Your task to perform on an android device: Toggle the flashlight Image 0: 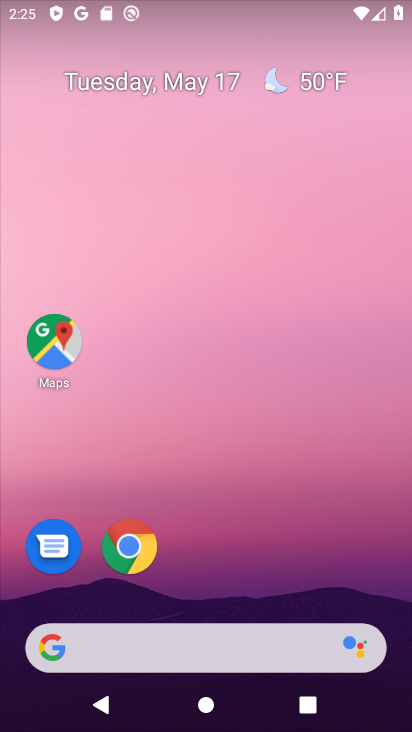
Step 0: click (136, 551)
Your task to perform on an android device: Toggle the flashlight Image 1: 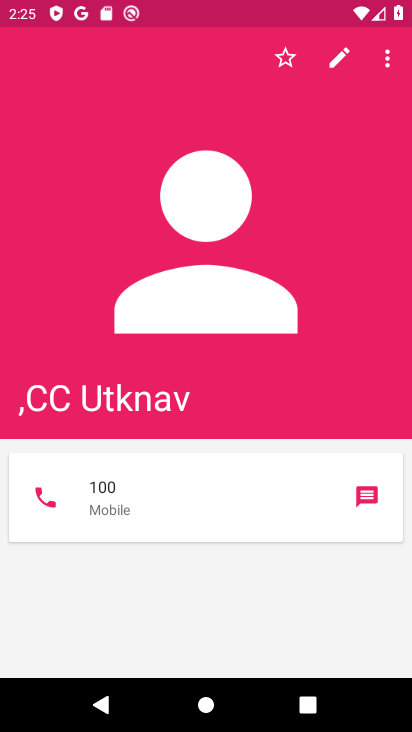
Step 1: press home button
Your task to perform on an android device: Toggle the flashlight Image 2: 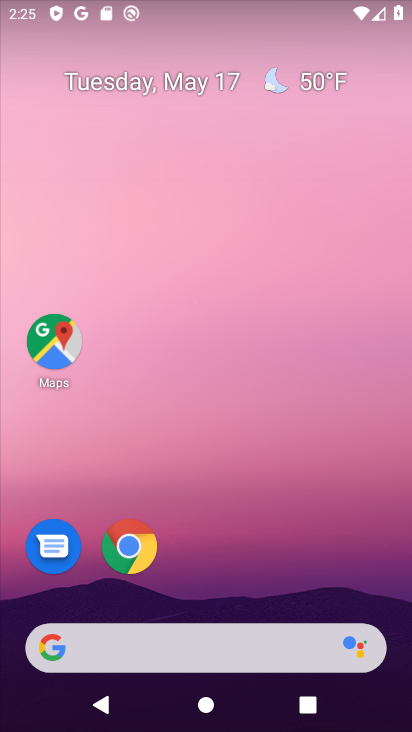
Step 2: drag from (218, 553) to (167, 3)
Your task to perform on an android device: Toggle the flashlight Image 3: 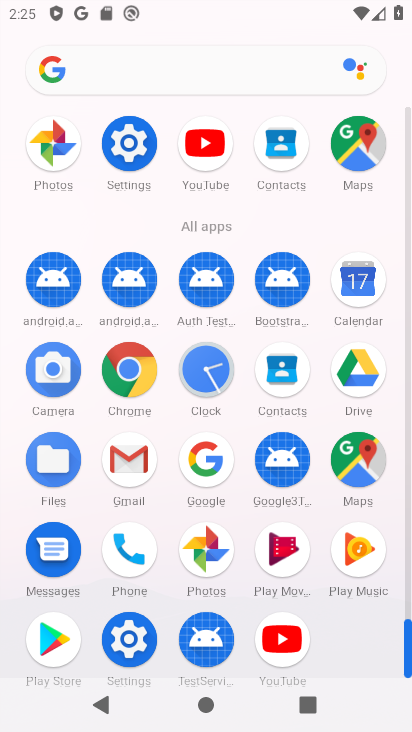
Step 3: click (126, 176)
Your task to perform on an android device: Toggle the flashlight Image 4: 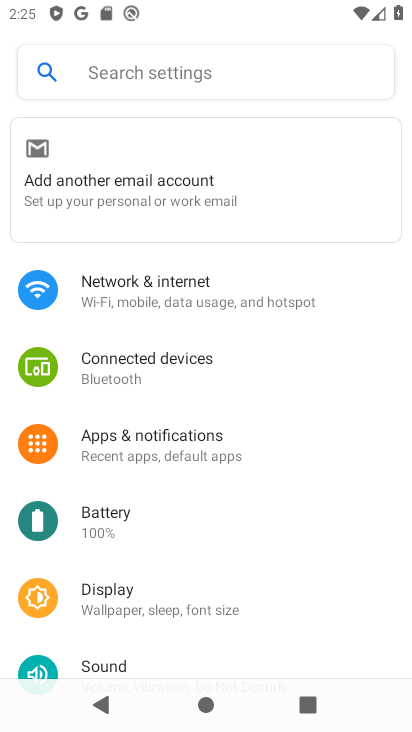
Step 4: click (159, 66)
Your task to perform on an android device: Toggle the flashlight Image 5: 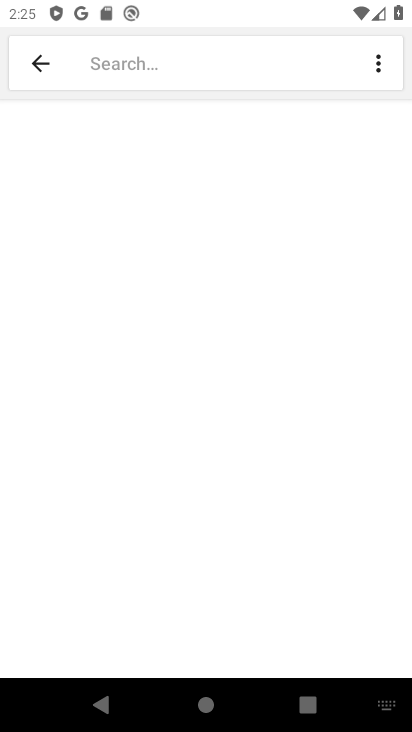
Step 5: type "flashlight"
Your task to perform on an android device: Toggle the flashlight Image 6: 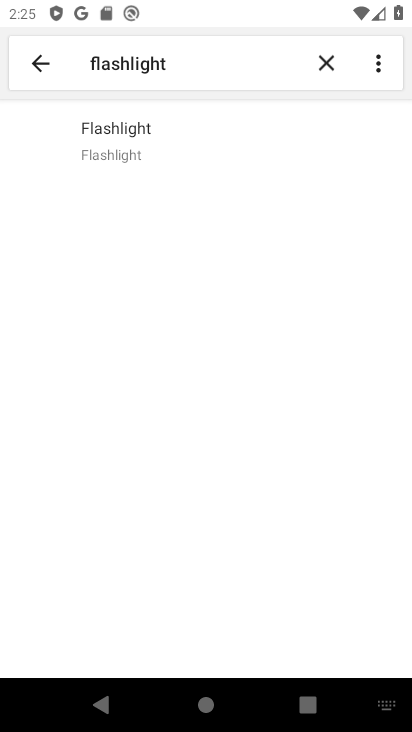
Step 6: click (116, 116)
Your task to perform on an android device: Toggle the flashlight Image 7: 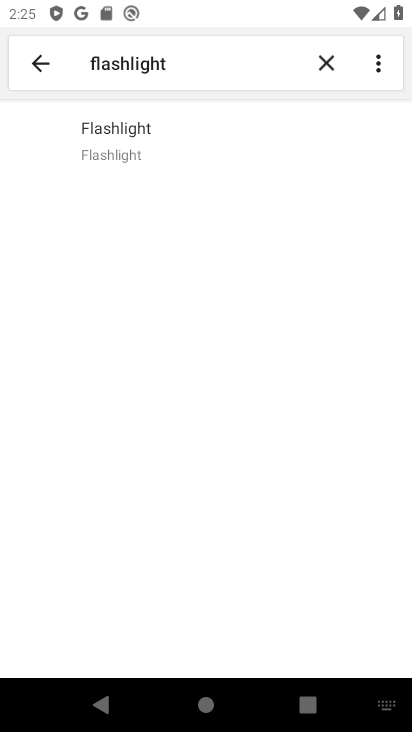
Step 7: click (117, 127)
Your task to perform on an android device: Toggle the flashlight Image 8: 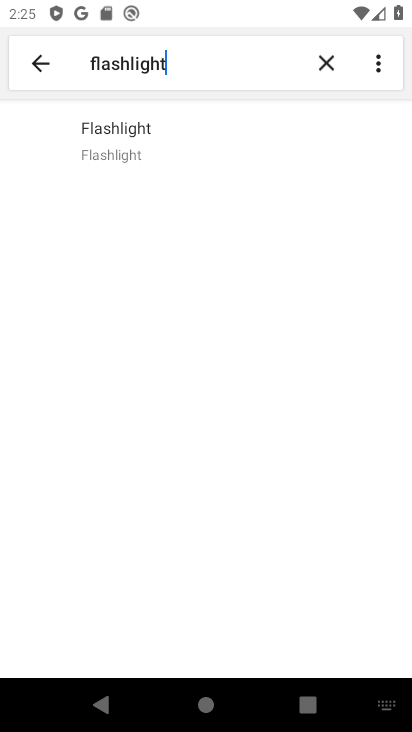
Step 8: task complete